Your task to perform on an android device: Search for vegetarian restaurants on Maps Image 0: 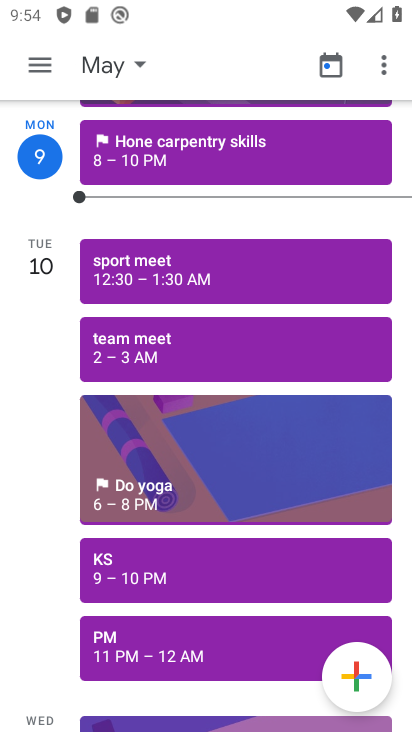
Step 0: drag from (363, 618) to (382, 499)
Your task to perform on an android device: Search for vegetarian restaurants on Maps Image 1: 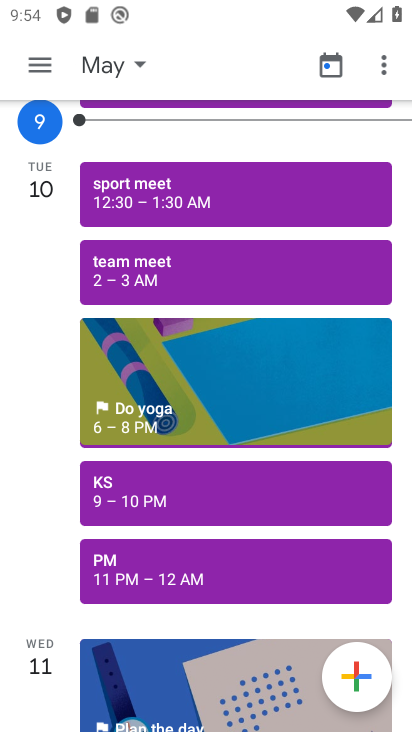
Step 1: press home button
Your task to perform on an android device: Search for vegetarian restaurants on Maps Image 2: 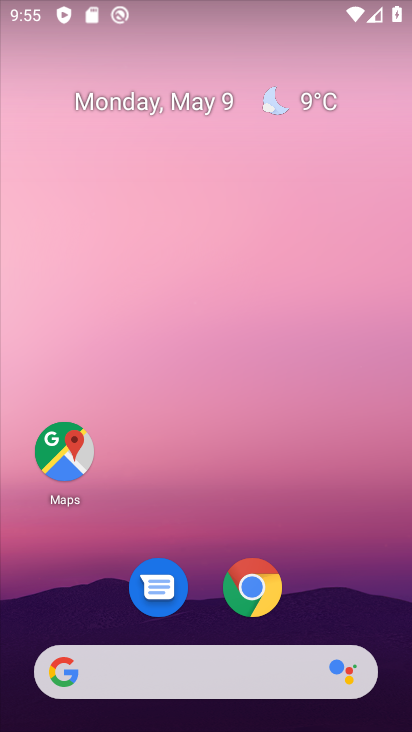
Step 2: drag from (364, 494) to (325, 65)
Your task to perform on an android device: Search for vegetarian restaurants on Maps Image 3: 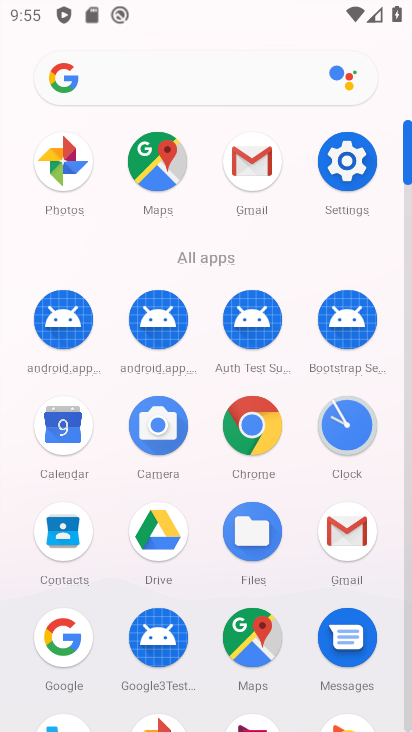
Step 3: click (176, 156)
Your task to perform on an android device: Search for vegetarian restaurants on Maps Image 4: 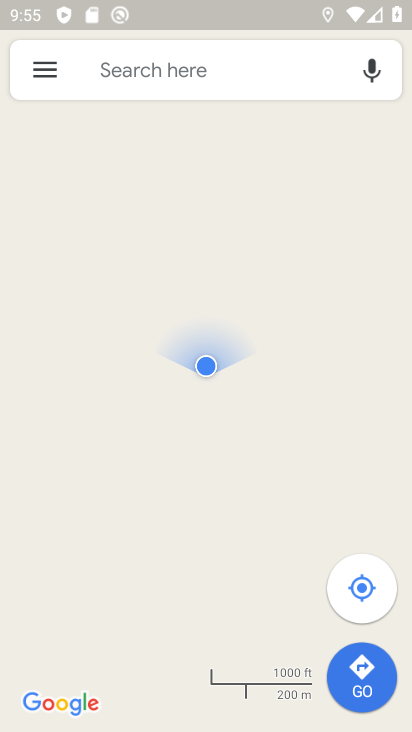
Step 4: click (272, 75)
Your task to perform on an android device: Search for vegetarian restaurants on Maps Image 5: 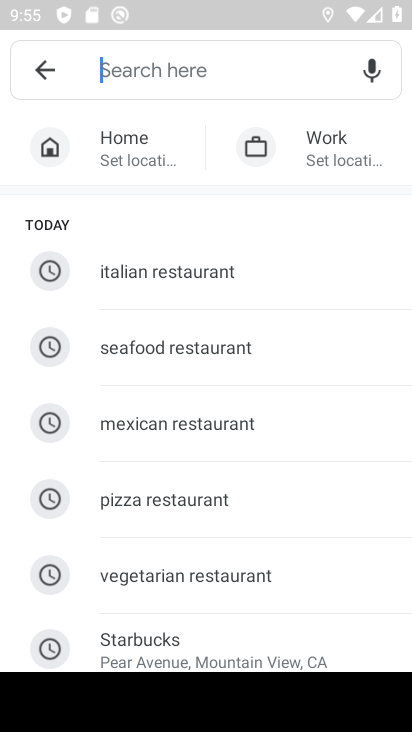
Step 5: type "vegetarian resturenst "
Your task to perform on an android device: Search for vegetarian restaurants on Maps Image 6: 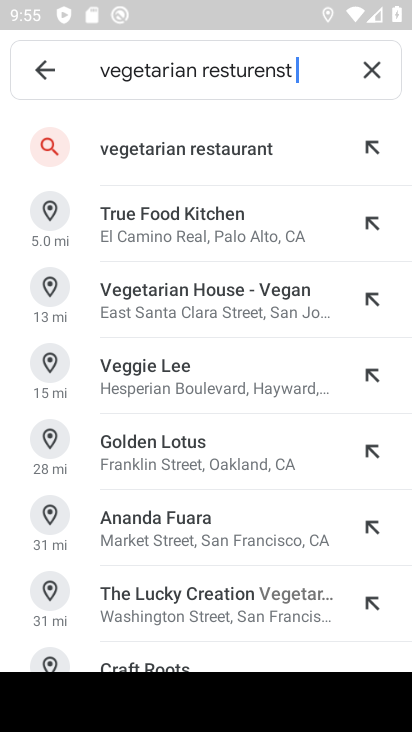
Step 6: click (236, 148)
Your task to perform on an android device: Search for vegetarian restaurants on Maps Image 7: 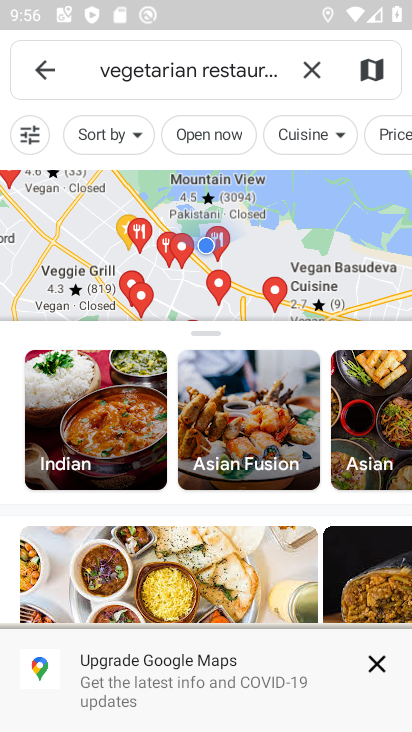
Step 7: task complete